Your task to perform on an android device: toggle show notifications on the lock screen Image 0: 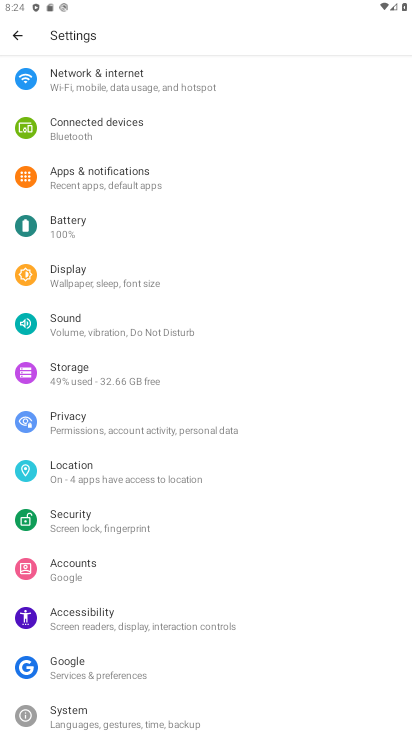
Step 0: click (92, 184)
Your task to perform on an android device: toggle show notifications on the lock screen Image 1: 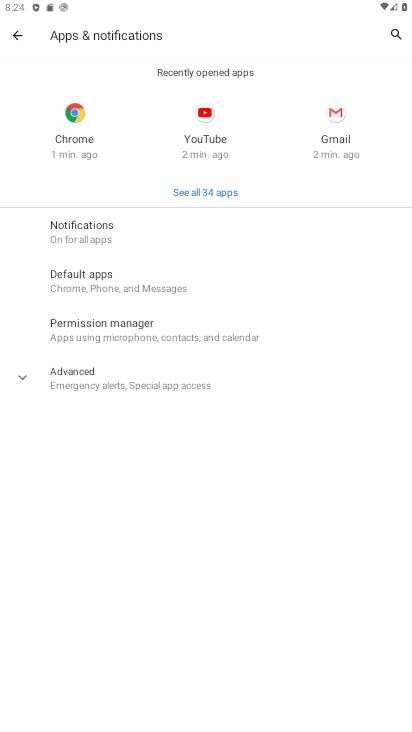
Step 1: click (66, 224)
Your task to perform on an android device: toggle show notifications on the lock screen Image 2: 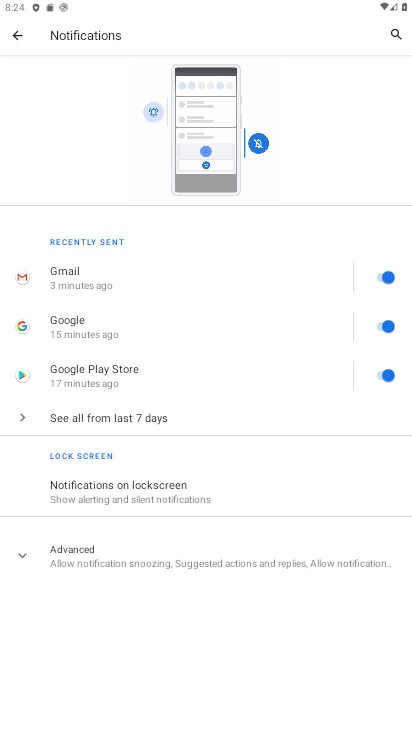
Step 2: click (95, 490)
Your task to perform on an android device: toggle show notifications on the lock screen Image 3: 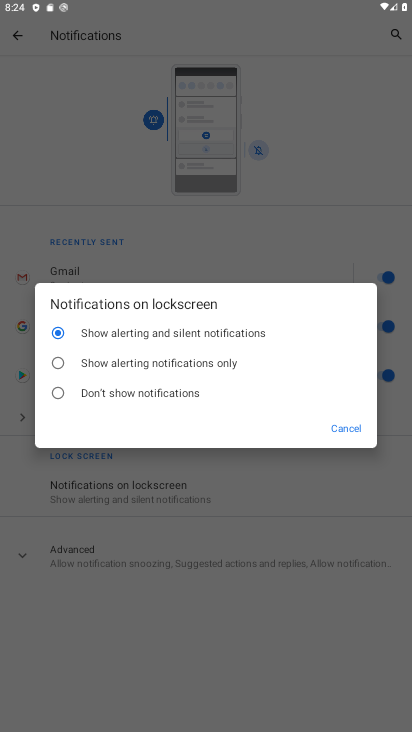
Step 3: click (61, 393)
Your task to perform on an android device: toggle show notifications on the lock screen Image 4: 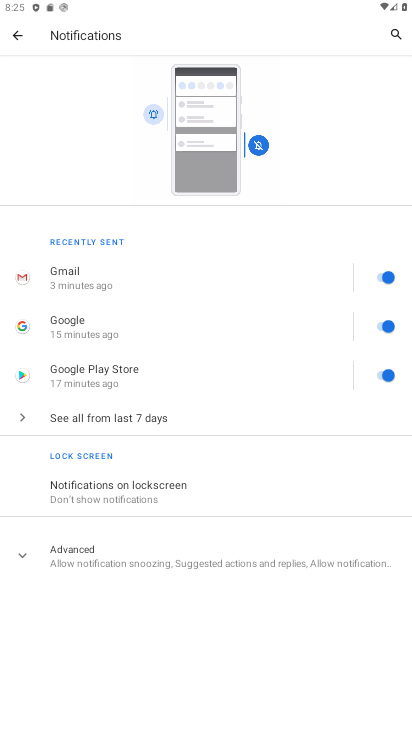
Step 4: task complete